Your task to perform on an android device: Open Yahoo.com Image 0: 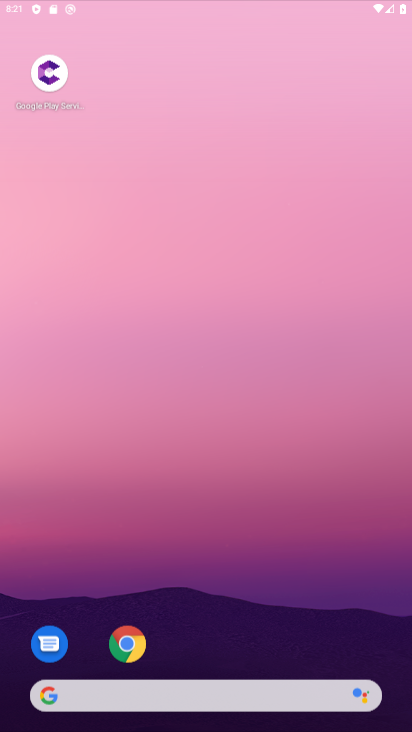
Step 0: drag from (240, 189) to (216, 30)
Your task to perform on an android device: Open Yahoo.com Image 1: 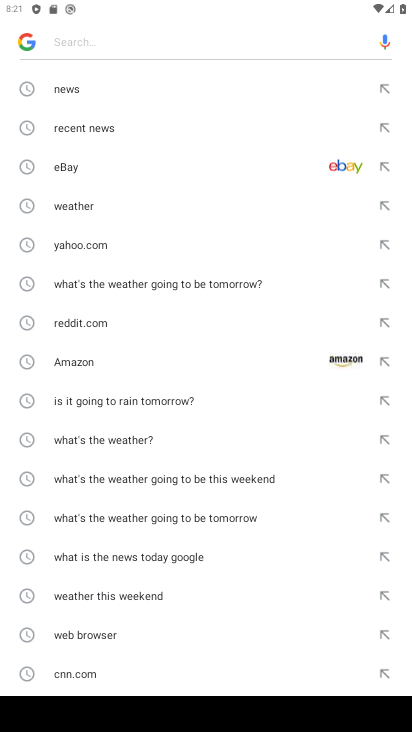
Step 1: press back button
Your task to perform on an android device: Open Yahoo.com Image 2: 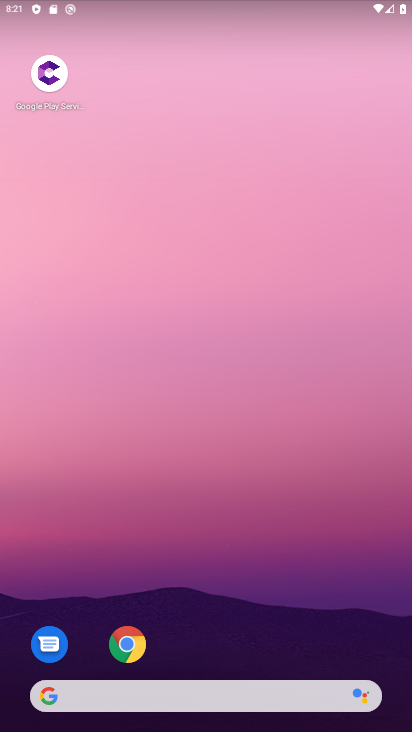
Step 2: drag from (201, 373) to (176, 37)
Your task to perform on an android device: Open Yahoo.com Image 3: 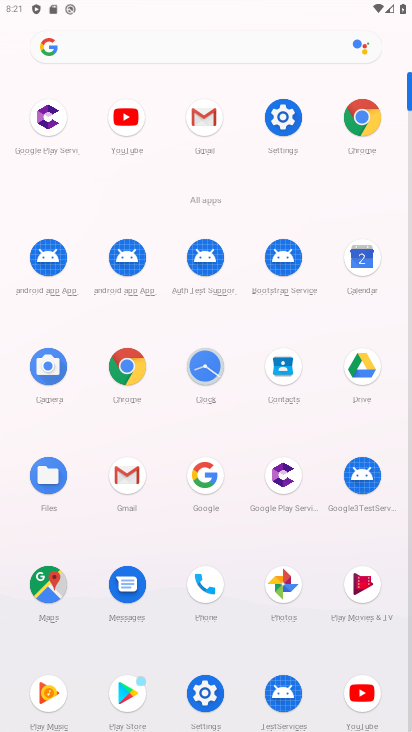
Step 3: click (124, 365)
Your task to perform on an android device: Open Yahoo.com Image 4: 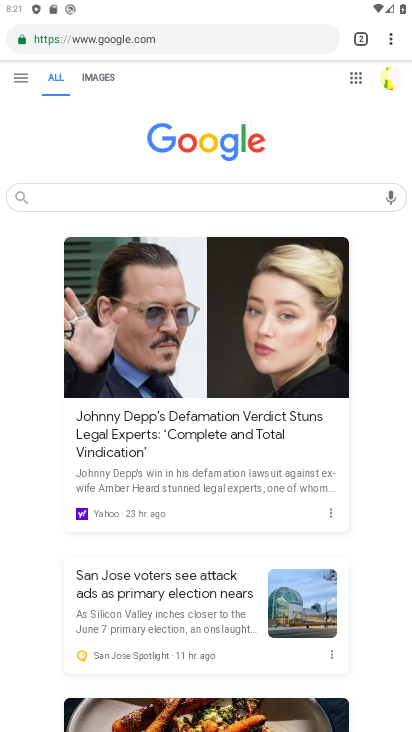
Step 4: click (163, 31)
Your task to perform on an android device: Open Yahoo.com Image 5: 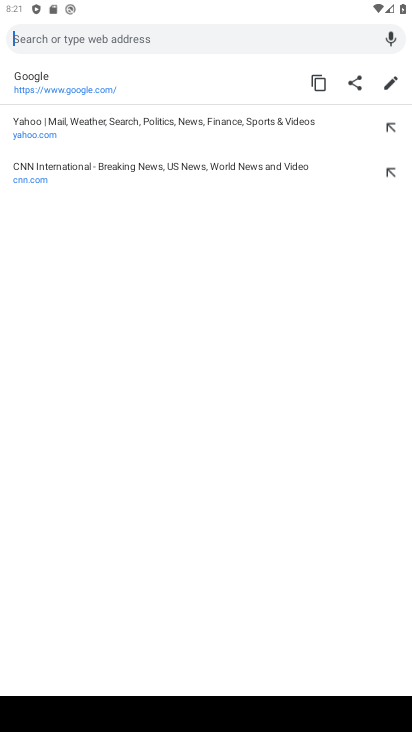
Step 5: click (58, 137)
Your task to perform on an android device: Open Yahoo.com Image 6: 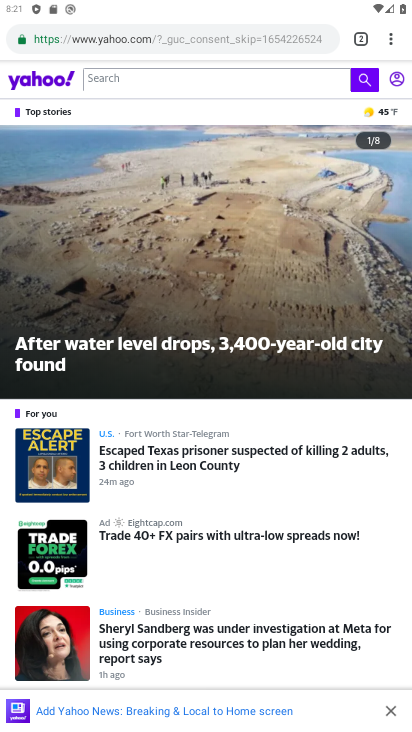
Step 6: task complete